Your task to perform on an android device: Show me popular videos on Youtube Image 0: 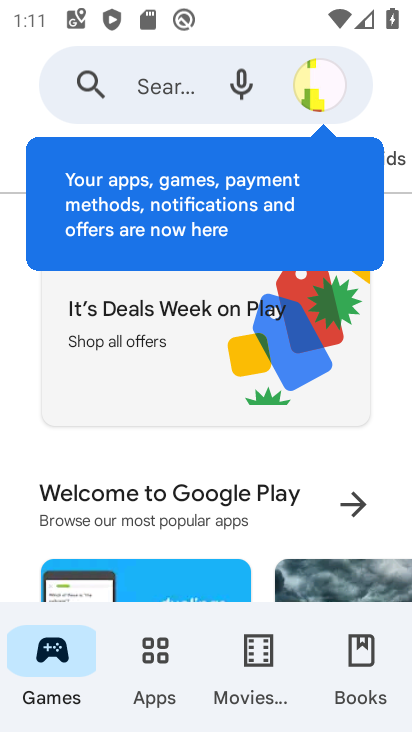
Step 0: press home button
Your task to perform on an android device: Show me popular videos on Youtube Image 1: 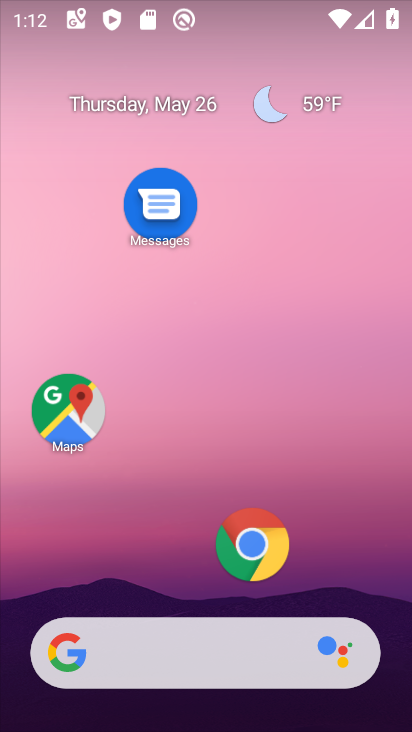
Step 1: click (200, 134)
Your task to perform on an android device: Show me popular videos on Youtube Image 2: 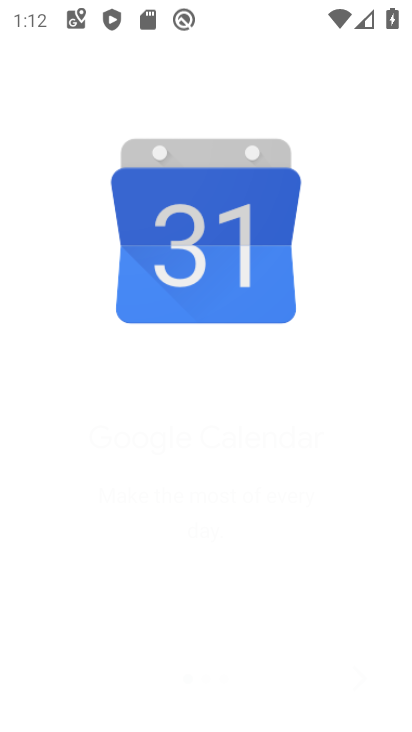
Step 2: drag from (186, 573) to (236, 337)
Your task to perform on an android device: Show me popular videos on Youtube Image 3: 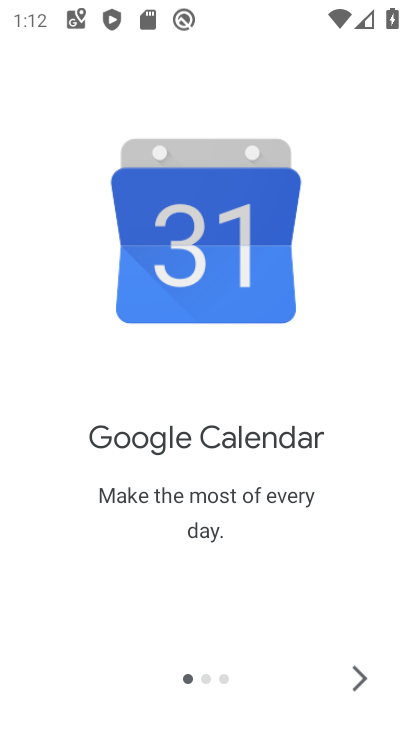
Step 3: press home button
Your task to perform on an android device: Show me popular videos on Youtube Image 4: 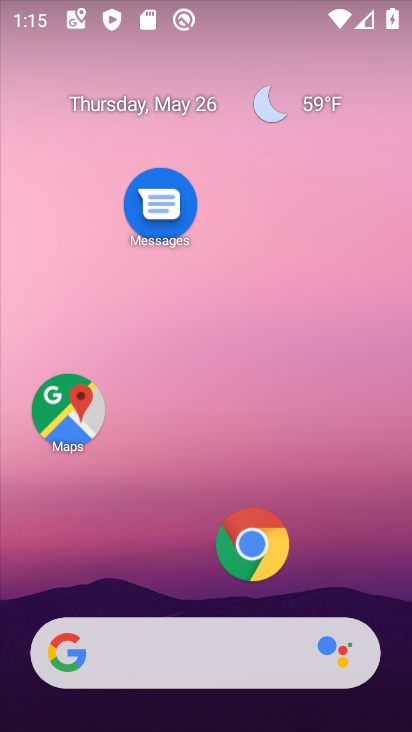
Step 4: drag from (174, 569) to (214, 59)
Your task to perform on an android device: Show me popular videos on Youtube Image 5: 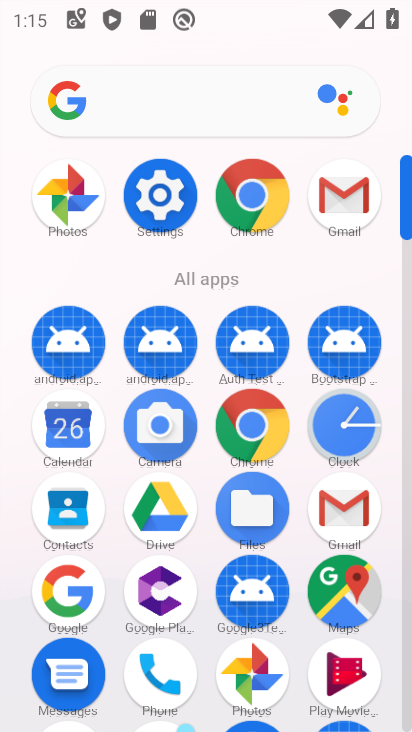
Step 5: drag from (201, 613) to (217, 114)
Your task to perform on an android device: Show me popular videos on Youtube Image 6: 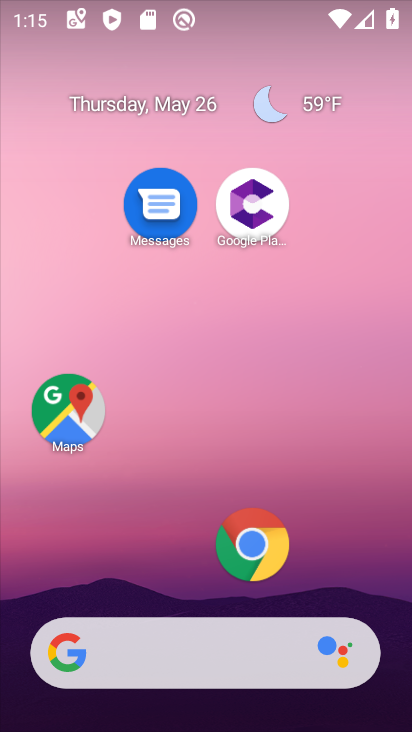
Step 6: drag from (183, 591) to (227, 28)
Your task to perform on an android device: Show me popular videos on Youtube Image 7: 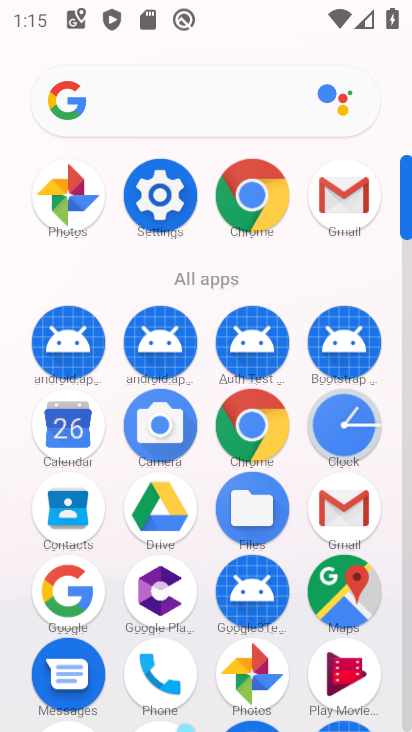
Step 7: drag from (212, 641) to (270, 42)
Your task to perform on an android device: Show me popular videos on Youtube Image 8: 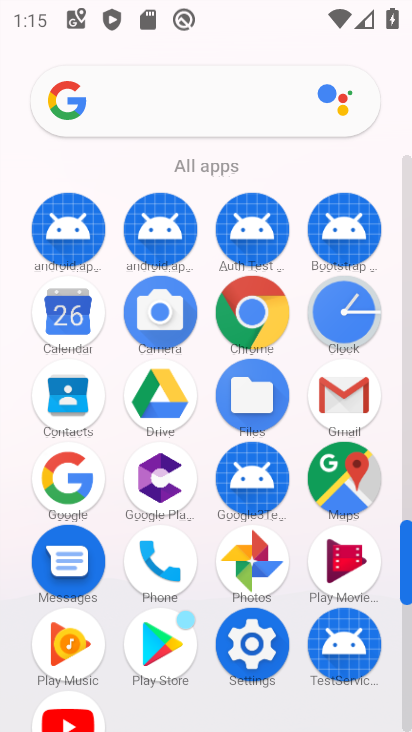
Step 8: click (53, 706)
Your task to perform on an android device: Show me popular videos on Youtube Image 9: 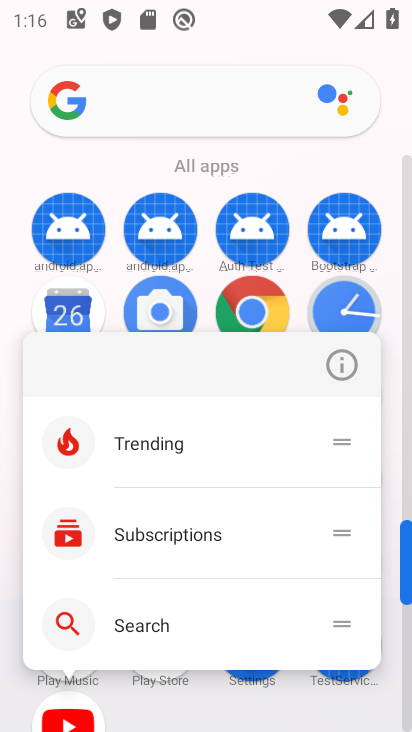
Step 9: click (183, 441)
Your task to perform on an android device: Show me popular videos on Youtube Image 10: 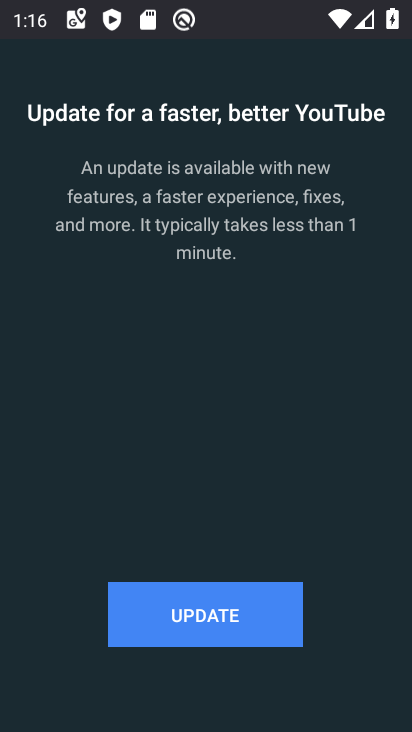
Step 10: click (194, 624)
Your task to perform on an android device: Show me popular videos on Youtube Image 11: 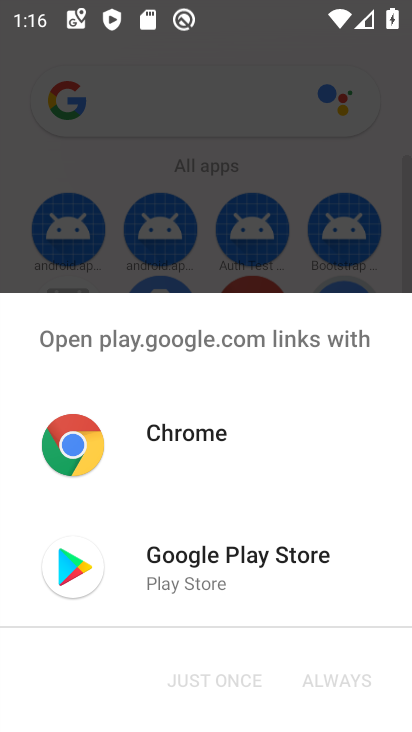
Step 11: click (277, 564)
Your task to perform on an android device: Show me popular videos on Youtube Image 12: 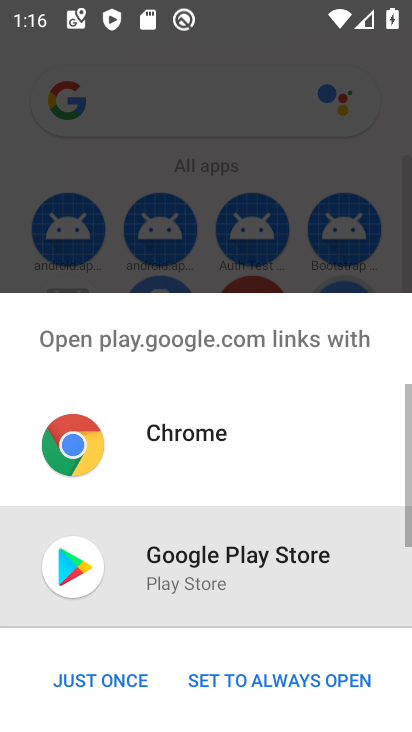
Step 12: click (102, 678)
Your task to perform on an android device: Show me popular videos on Youtube Image 13: 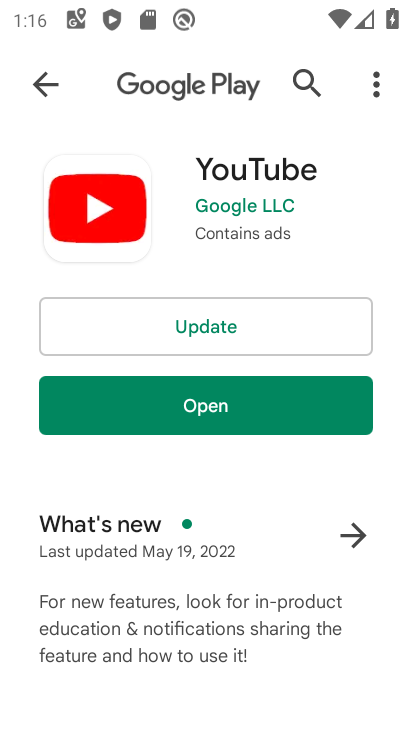
Step 13: click (318, 341)
Your task to perform on an android device: Show me popular videos on Youtube Image 14: 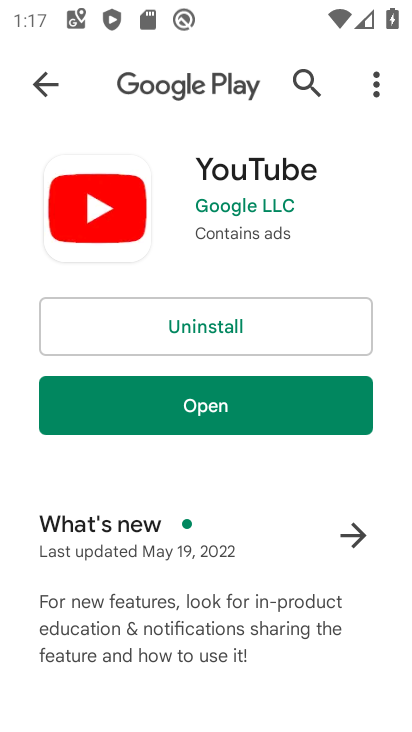
Step 14: click (248, 399)
Your task to perform on an android device: Show me popular videos on Youtube Image 15: 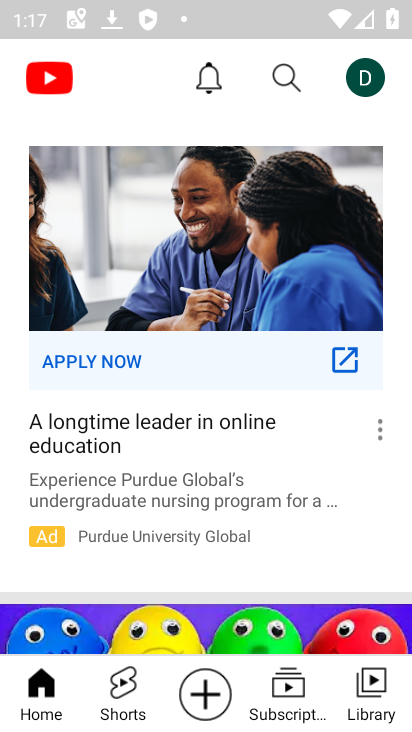
Step 15: drag from (184, 268) to (188, 679)
Your task to perform on an android device: Show me popular videos on Youtube Image 16: 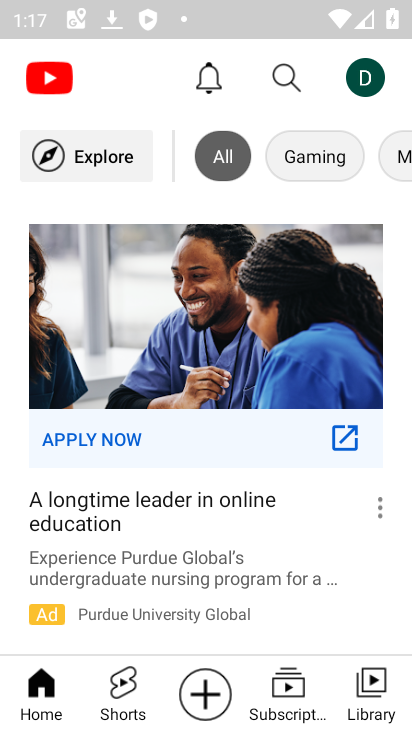
Step 16: click (110, 165)
Your task to perform on an android device: Show me popular videos on Youtube Image 17: 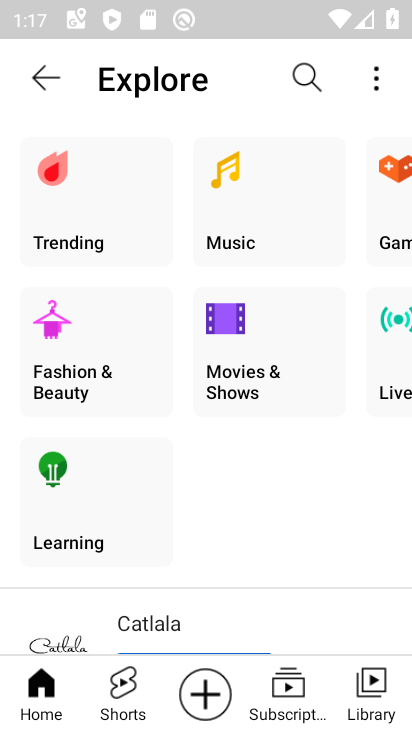
Step 17: click (110, 165)
Your task to perform on an android device: Show me popular videos on Youtube Image 18: 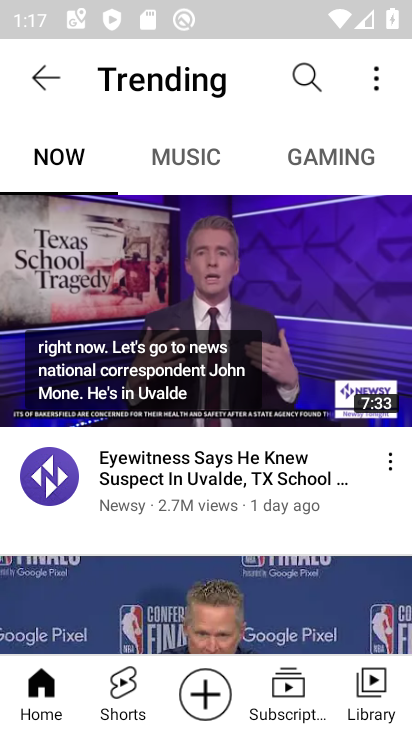
Step 18: task complete